Your task to perform on an android device: Turn on the flashlight Image 0: 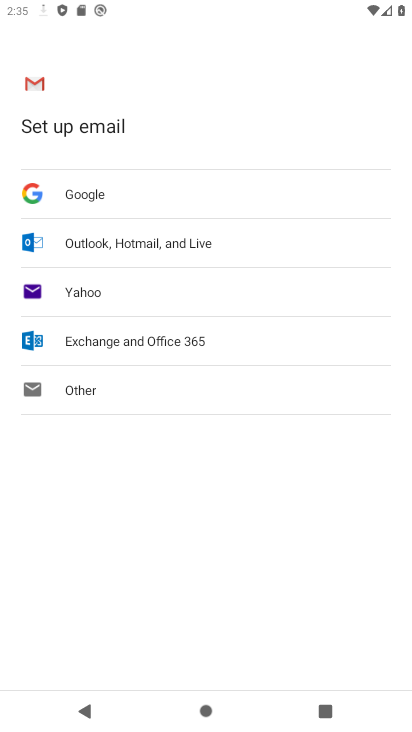
Step 0: press home button
Your task to perform on an android device: Turn on the flashlight Image 1: 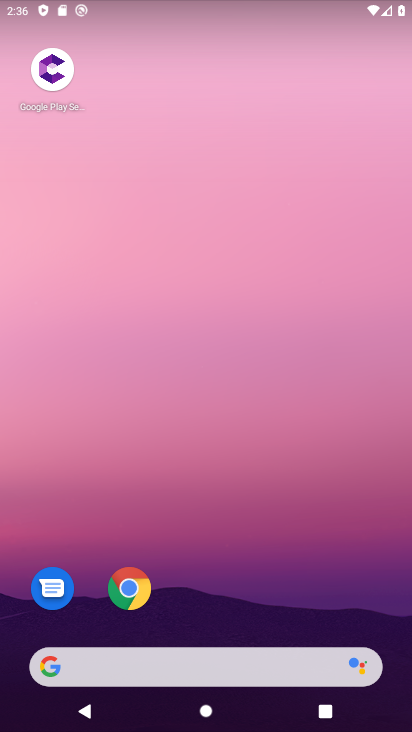
Step 1: task complete